Your task to perform on an android device: refresh tabs in the chrome app Image 0: 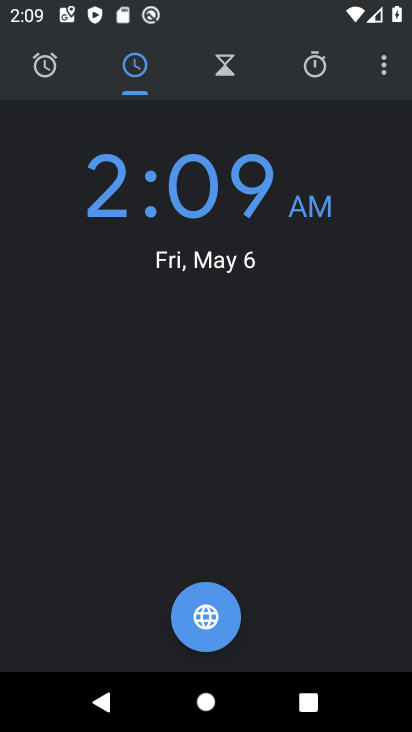
Step 0: press home button
Your task to perform on an android device: refresh tabs in the chrome app Image 1: 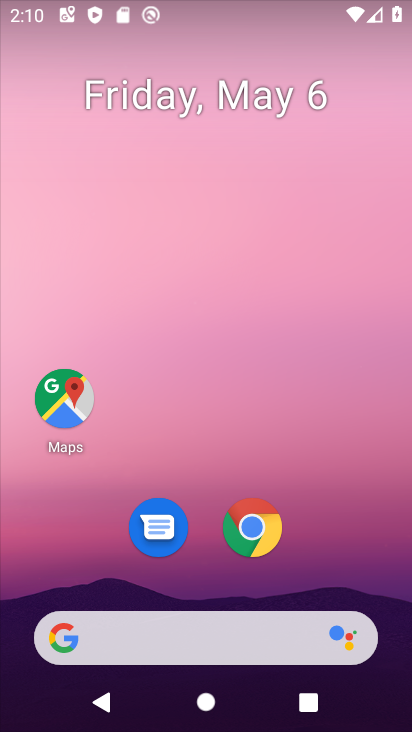
Step 1: click (258, 535)
Your task to perform on an android device: refresh tabs in the chrome app Image 2: 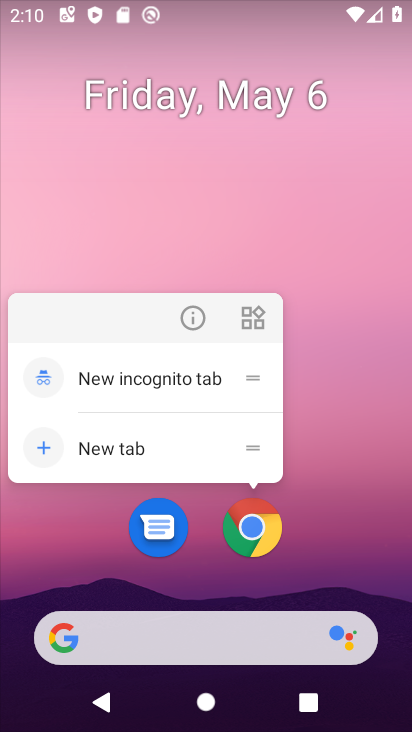
Step 2: click (268, 535)
Your task to perform on an android device: refresh tabs in the chrome app Image 3: 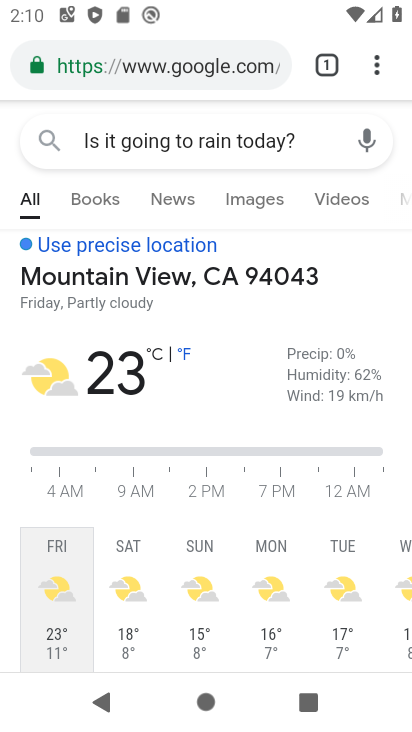
Step 3: click (372, 69)
Your task to perform on an android device: refresh tabs in the chrome app Image 4: 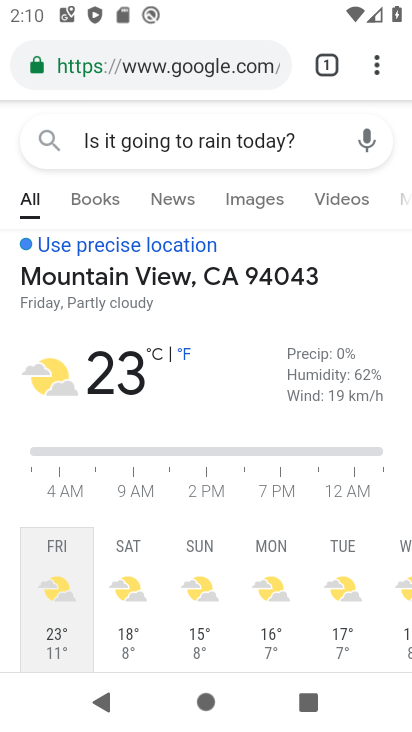
Step 4: click (372, 69)
Your task to perform on an android device: refresh tabs in the chrome app Image 5: 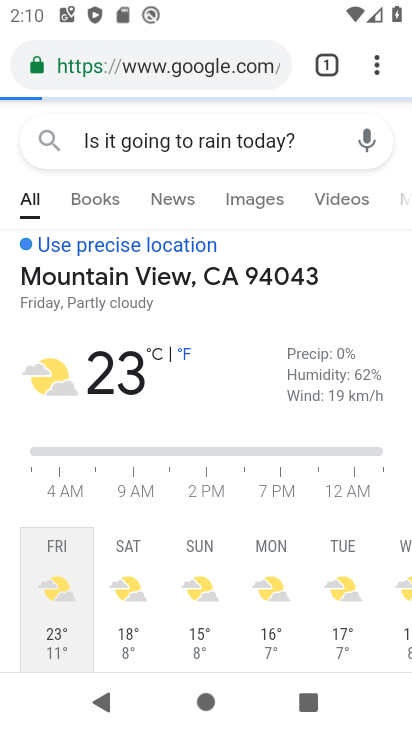
Step 5: click (367, 60)
Your task to perform on an android device: refresh tabs in the chrome app Image 6: 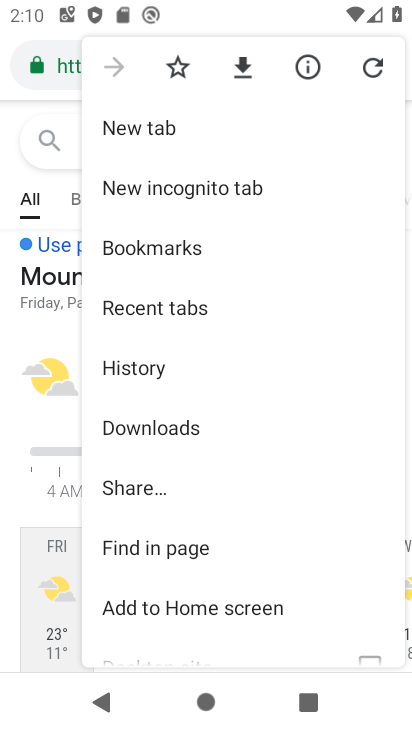
Step 6: task complete